Your task to perform on an android device: open chrome and create a bookmark for the current page Image 0: 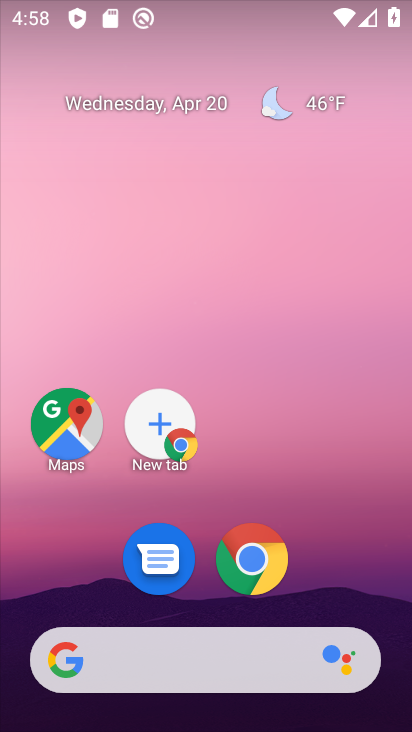
Step 0: click (257, 546)
Your task to perform on an android device: open chrome and create a bookmark for the current page Image 1: 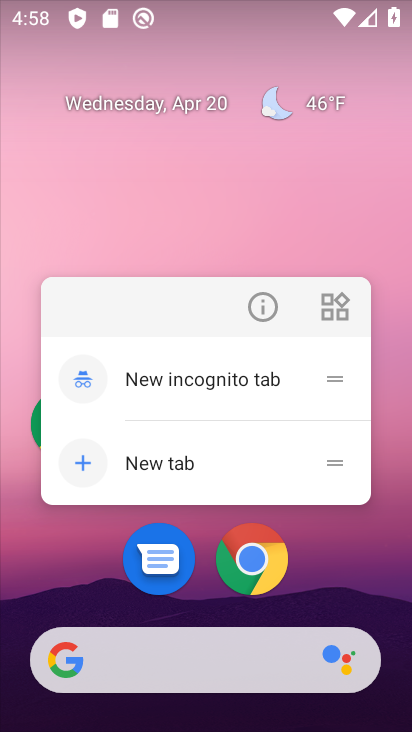
Step 1: click (257, 546)
Your task to perform on an android device: open chrome and create a bookmark for the current page Image 2: 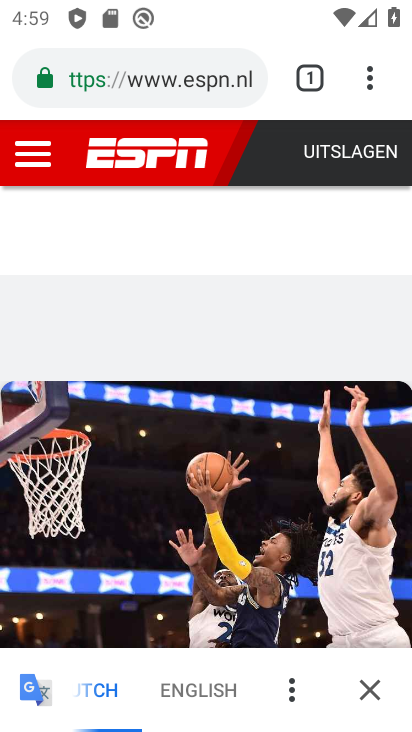
Step 2: click (367, 82)
Your task to perform on an android device: open chrome and create a bookmark for the current page Image 3: 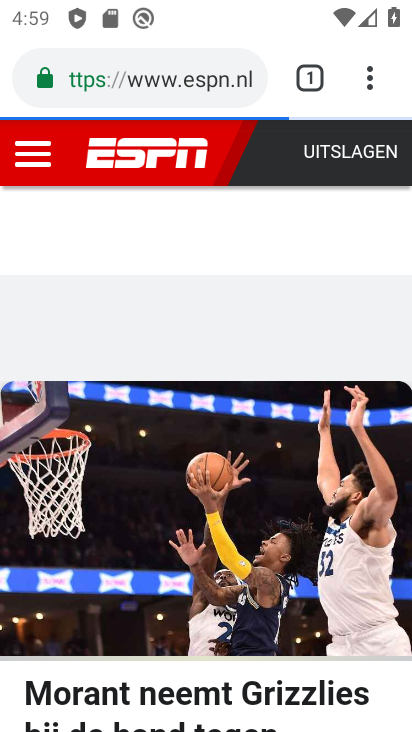
Step 3: click (364, 87)
Your task to perform on an android device: open chrome and create a bookmark for the current page Image 4: 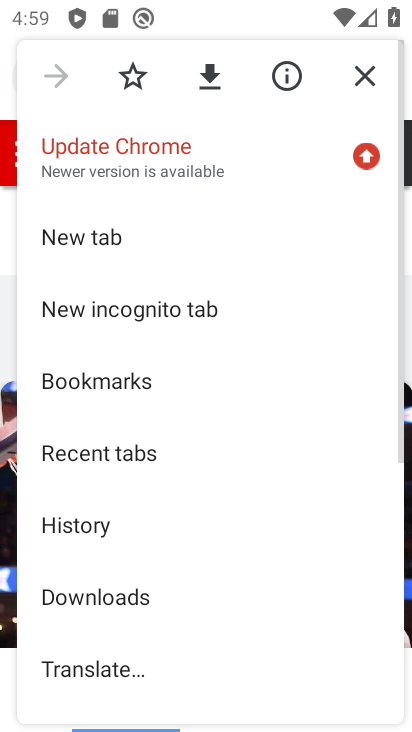
Step 4: click (124, 83)
Your task to perform on an android device: open chrome and create a bookmark for the current page Image 5: 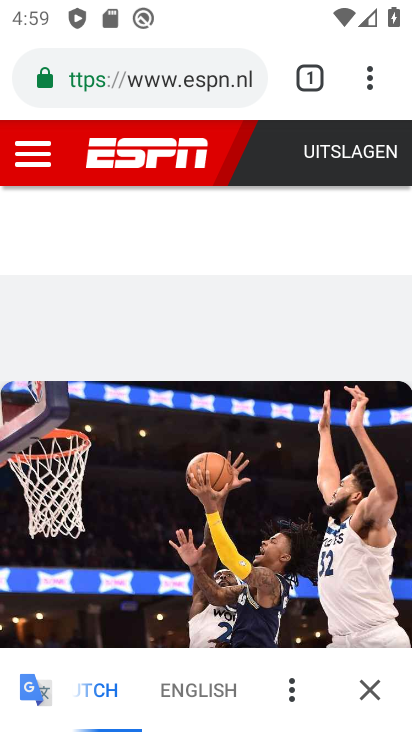
Step 5: task complete